Your task to perform on an android device: Open my contact list Image 0: 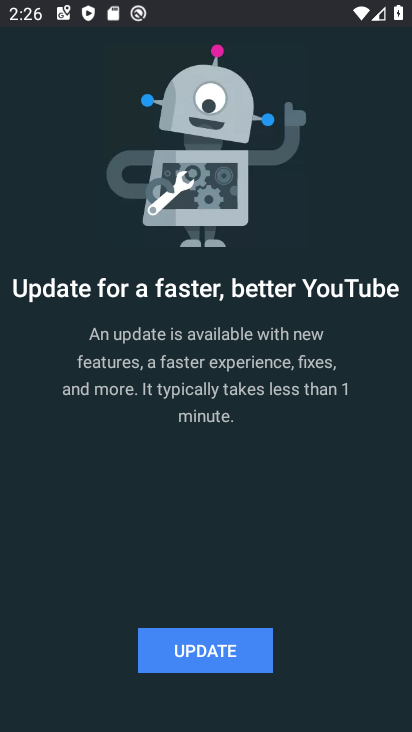
Step 0: press home button
Your task to perform on an android device: Open my contact list Image 1: 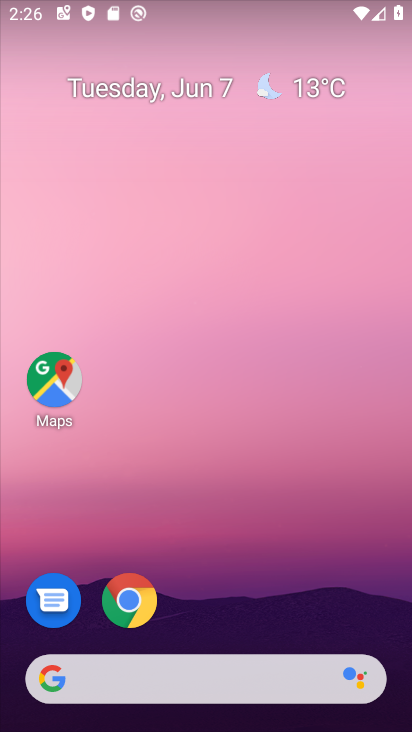
Step 1: drag from (208, 435) to (185, 105)
Your task to perform on an android device: Open my contact list Image 2: 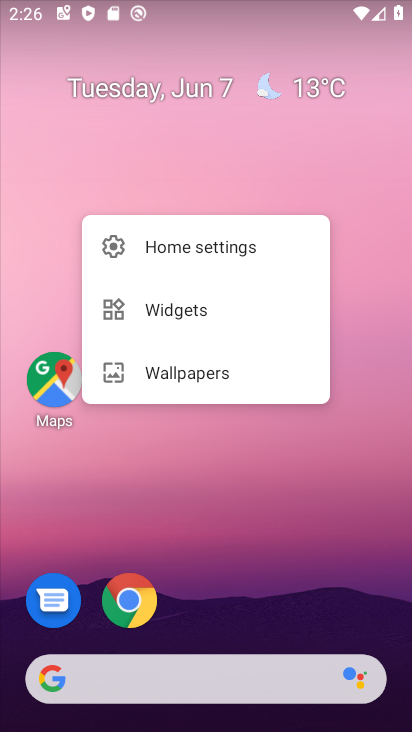
Step 2: click (260, 526)
Your task to perform on an android device: Open my contact list Image 3: 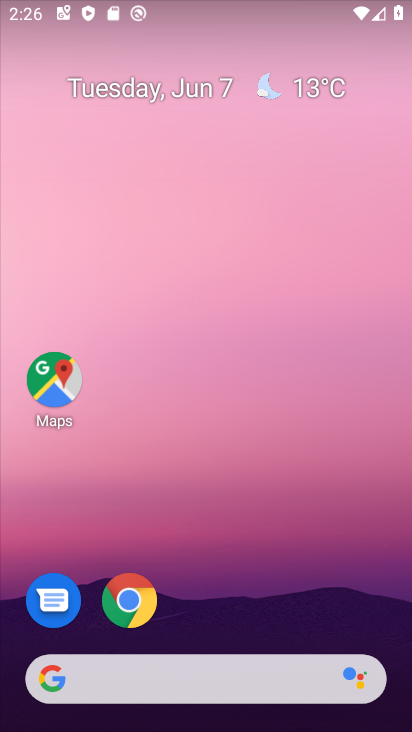
Step 3: drag from (220, 262) to (240, 86)
Your task to perform on an android device: Open my contact list Image 4: 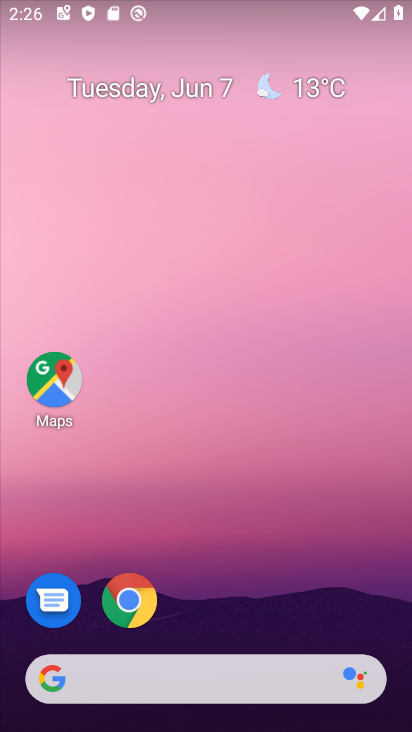
Step 4: drag from (228, 494) to (230, 182)
Your task to perform on an android device: Open my contact list Image 5: 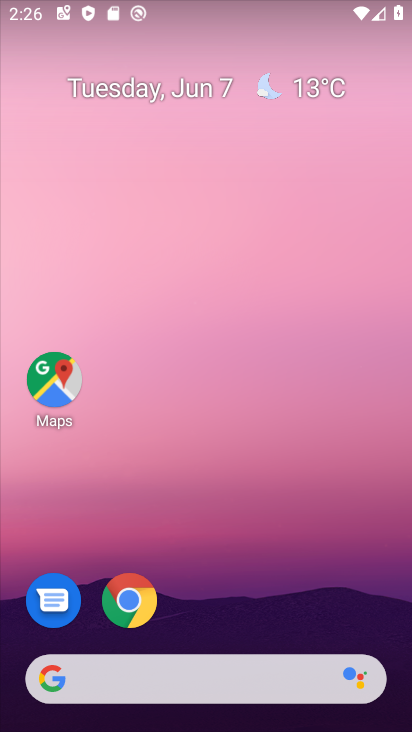
Step 5: click (224, 118)
Your task to perform on an android device: Open my contact list Image 6: 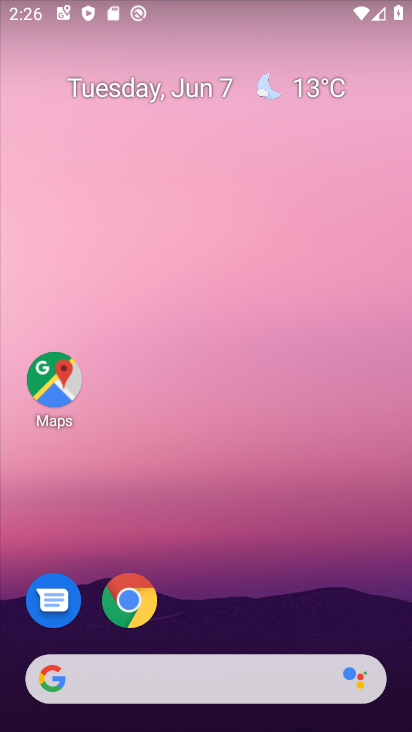
Step 6: drag from (228, 598) to (201, 0)
Your task to perform on an android device: Open my contact list Image 7: 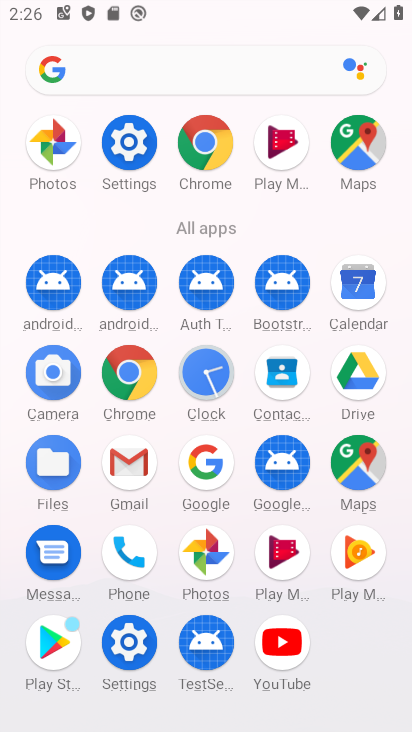
Step 7: click (279, 373)
Your task to perform on an android device: Open my contact list Image 8: 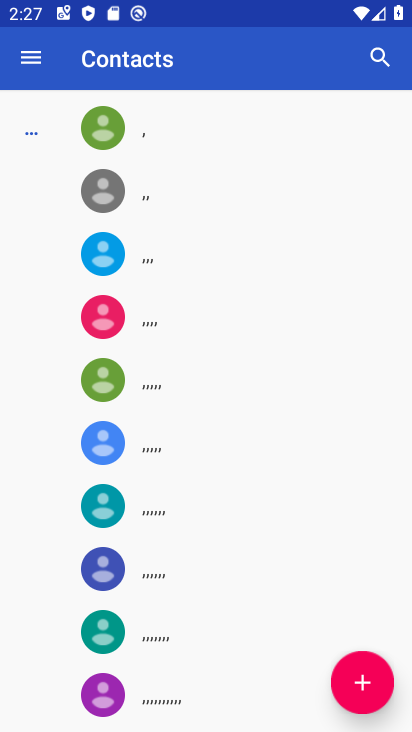
Step 8: task complete